Your task to perform on an android device: Go to wifi settings Image 0: 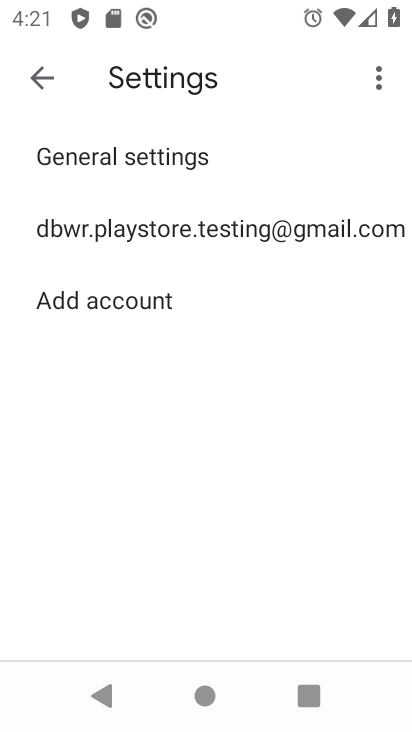
Step 0: press home button
Your task to perform on an android device: Go to wifi settings Image 1: 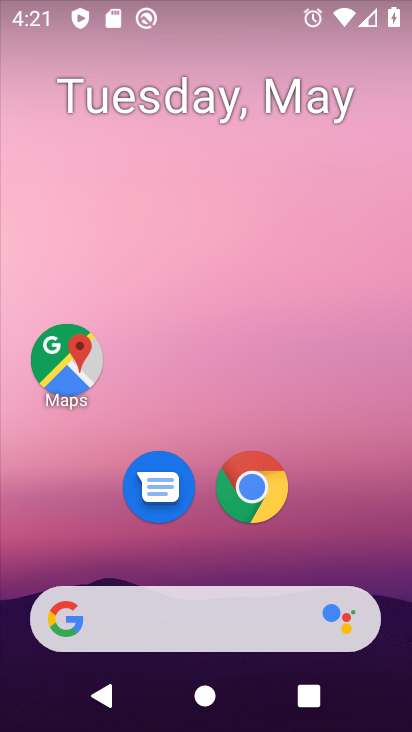
Step 1: drag from (327, 307) to (322, 149)
Your task to perform on an android device: Go to wifi settings Image 2: 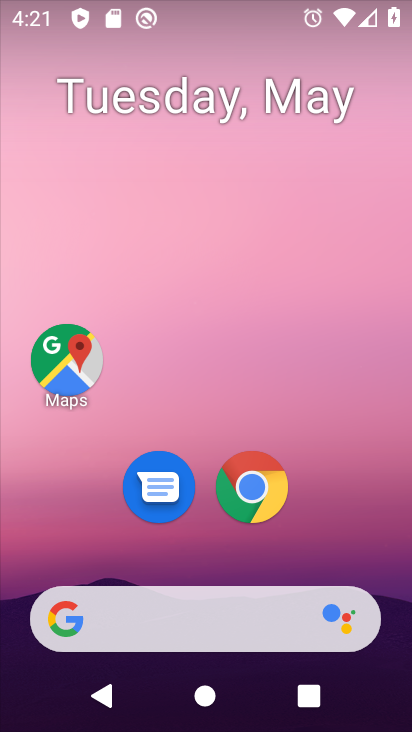
Step 2: drag from (316, 469) to (315, 140)
Your task to perform on an android device: Go to wifi settings Image 3: 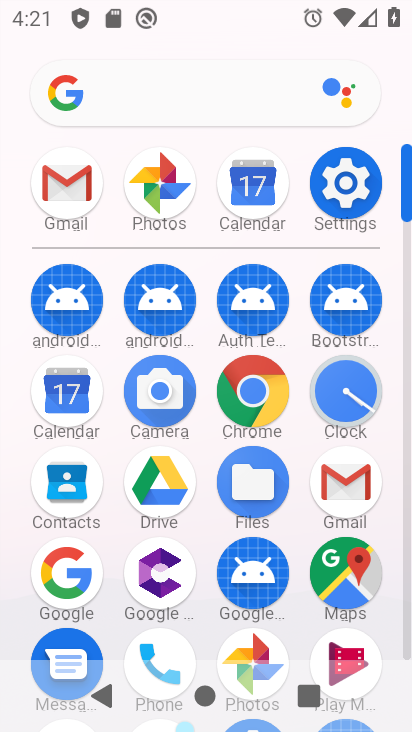
Step 3: click (338, 173)
Your task to perform on an android device: Go to wifi settings Image 4: 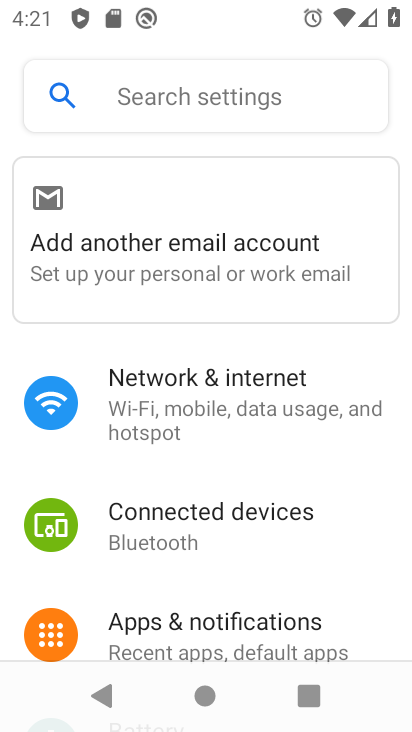
Step 4: click (251, 414)
Your task to perform on an android device: Go to wifi settings Image 5: 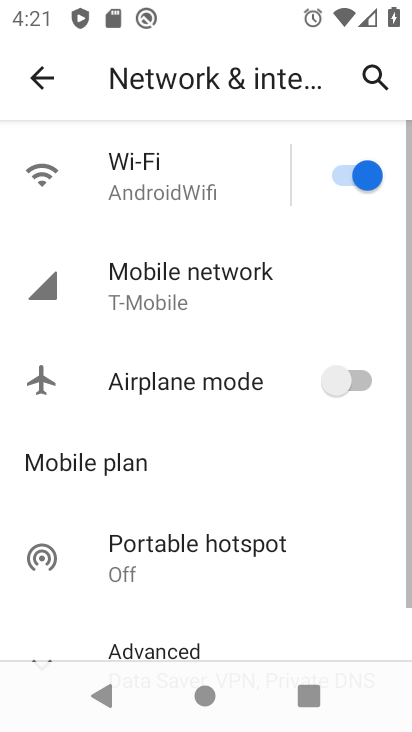
Step 5: click (239, 178)
Your task to perform on an android device: Go to wifi settings Image 6: 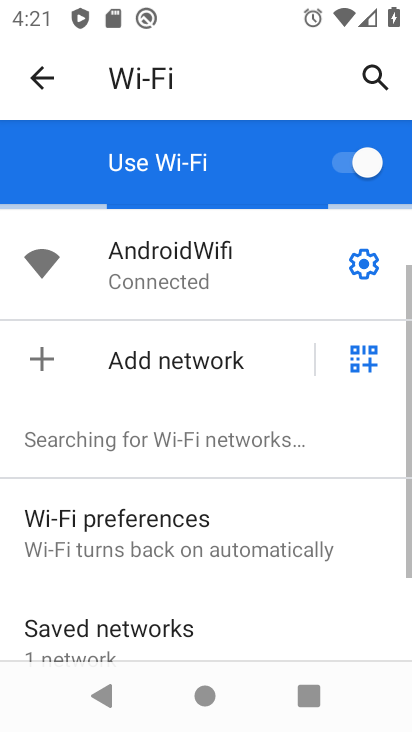
Step 6: click (372, 244)
Your task to perform on an android device: Go to wifi settings Image 7: 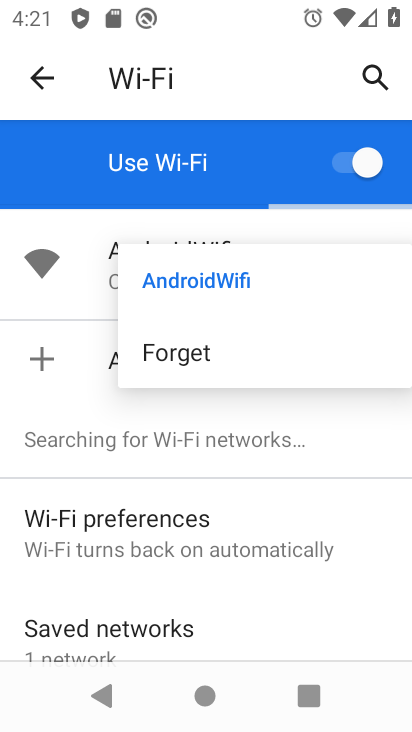
Step 7: click (294, 68)
Your task to perform on an android device: Go to wifi settings Image 8: 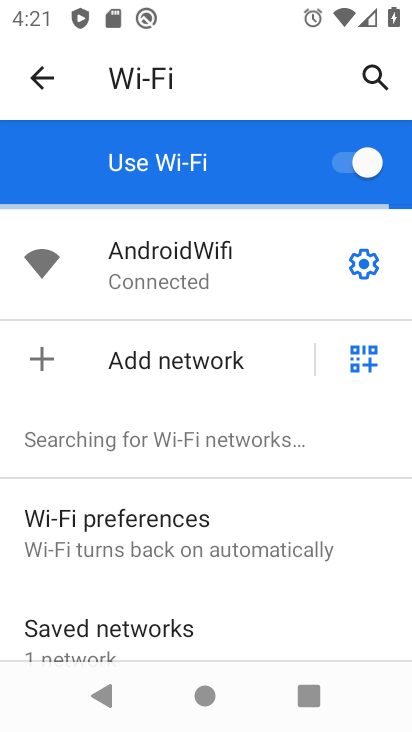
Step 8: click (359, 252)
Your task to perform on an android device: Go to wifi settings Image 9: 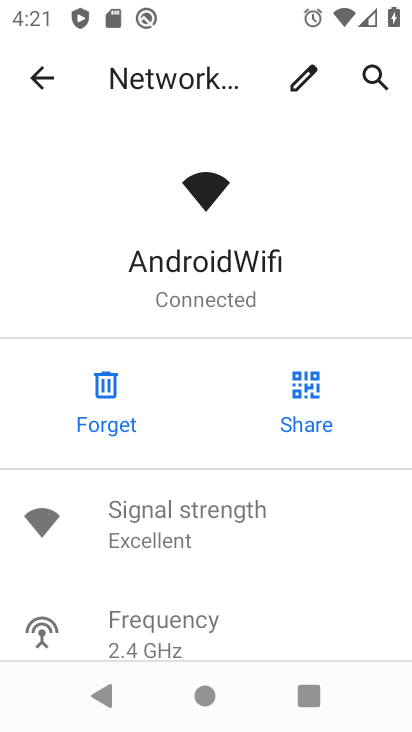
Step 9: task complete